Your task to perform on an android device: Open privacy settings Image 0: 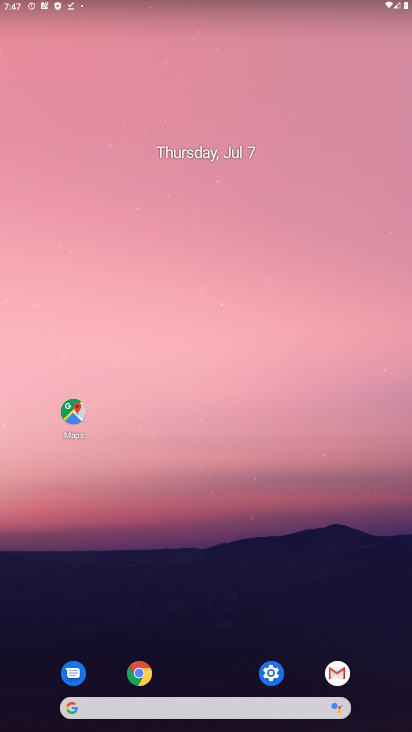
Step 0: click (276, 676)
Your task to perform on an android device: Open privacy settings Image 1: 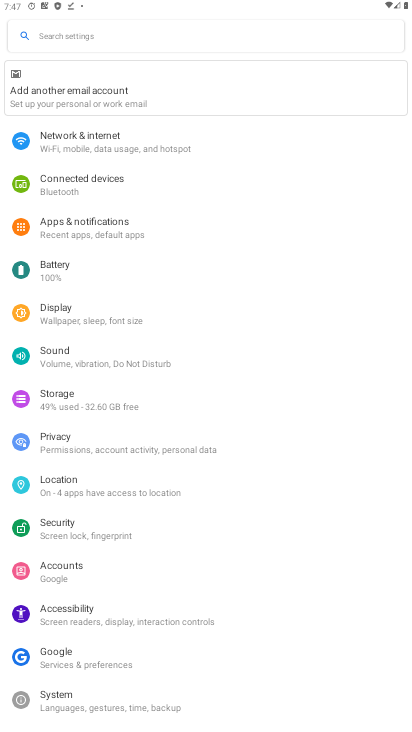
Step 1: click (69, 442)
Your task to perform on an android device: Open privacy settings Image 2: 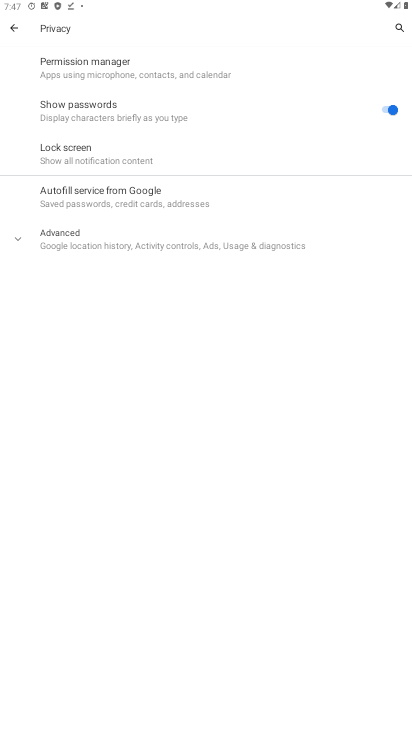
Step 2: click (37, 236)
Your task to perform on an android device: Open privacy settings Image 3: 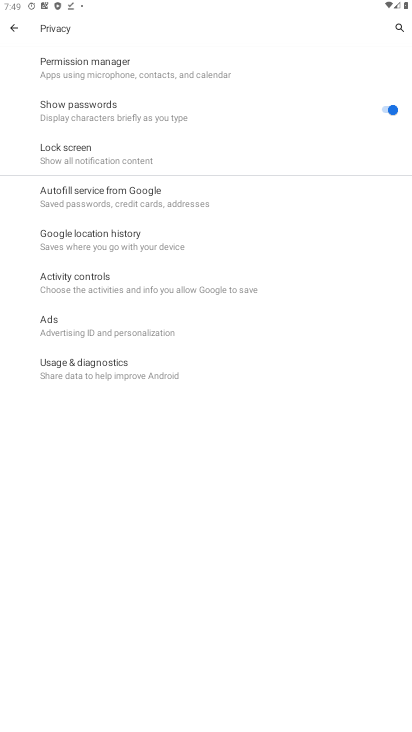
Step 3: task complete